Your task to perform on an android device: What's the weather like in Sydney? Image 0: 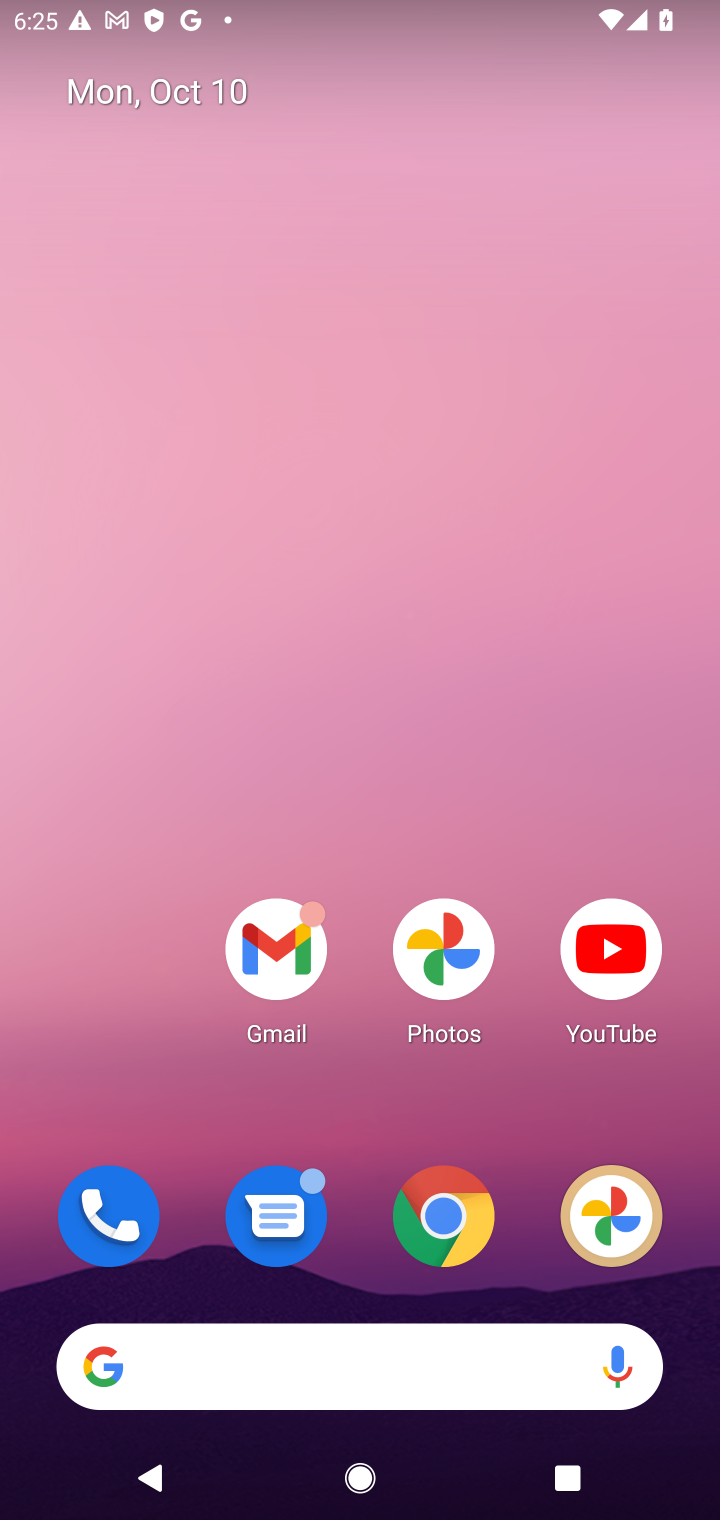
Step 0: drag from (386, 1348) to (376, 482)
Your task to perform on an android device: What's the weather like in Sydney? Image 1: 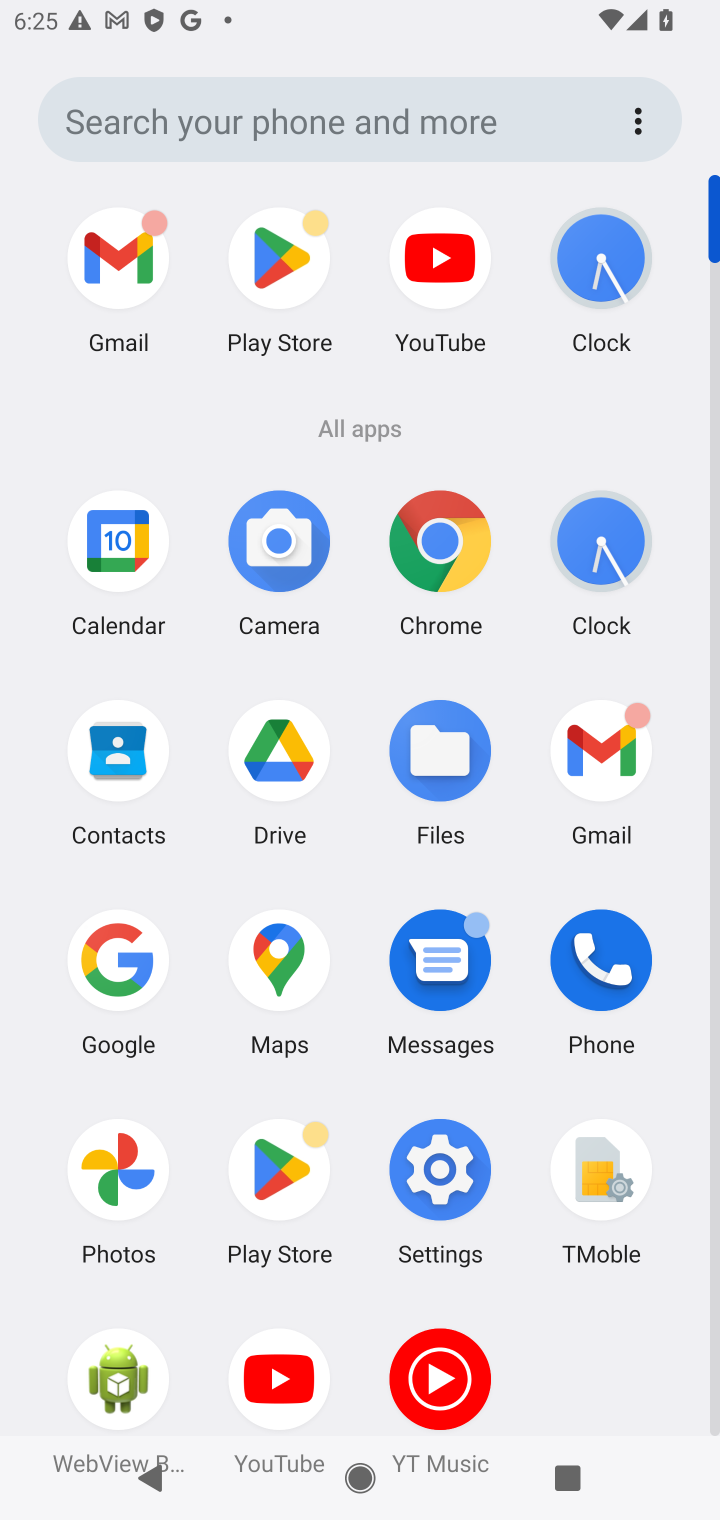
Step 1: click (120, 960)
Your task to perform on an android device: What's the weather like in Sydney? Image 2: 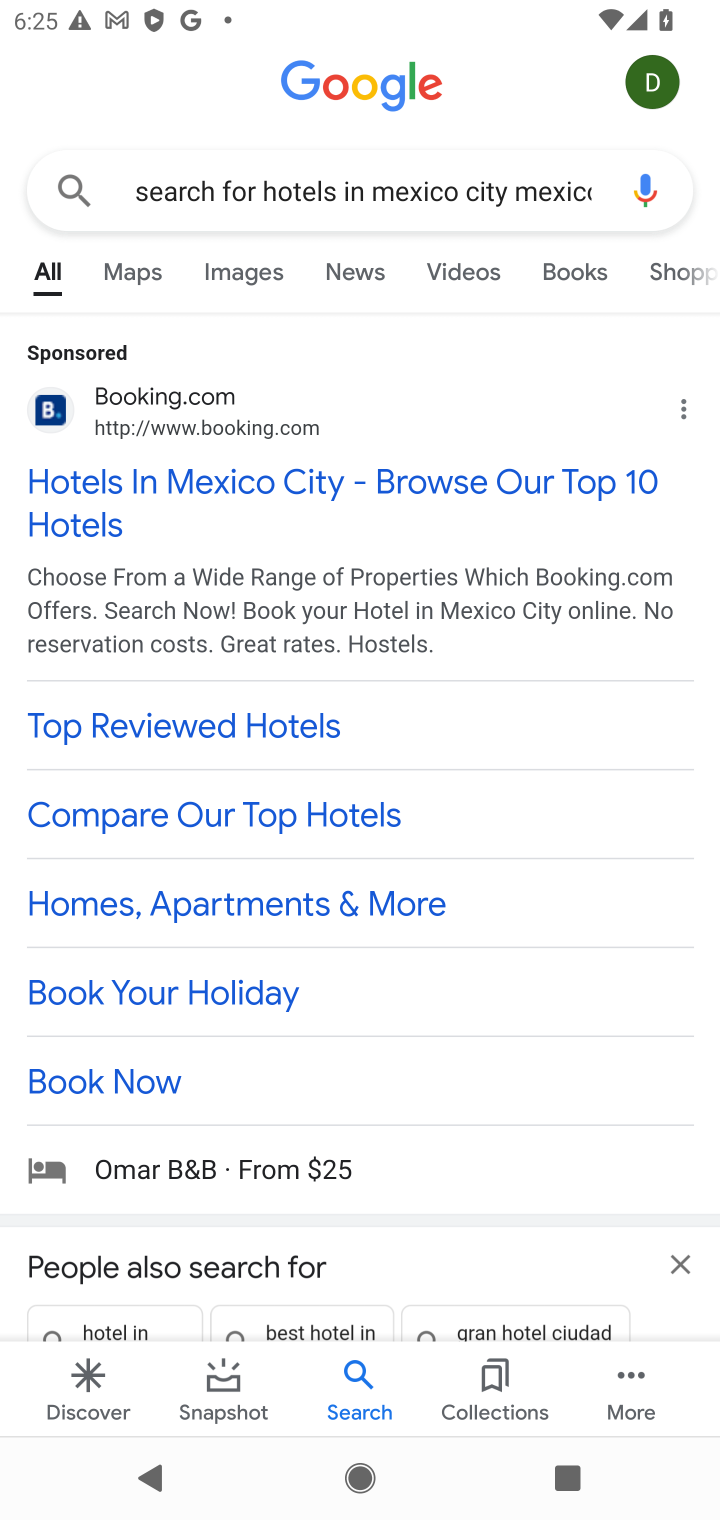
Step 2: type "What's the weather like in Sydney?"
Your task to perform on an android device: What's the weather like in Sydney? Image 3: 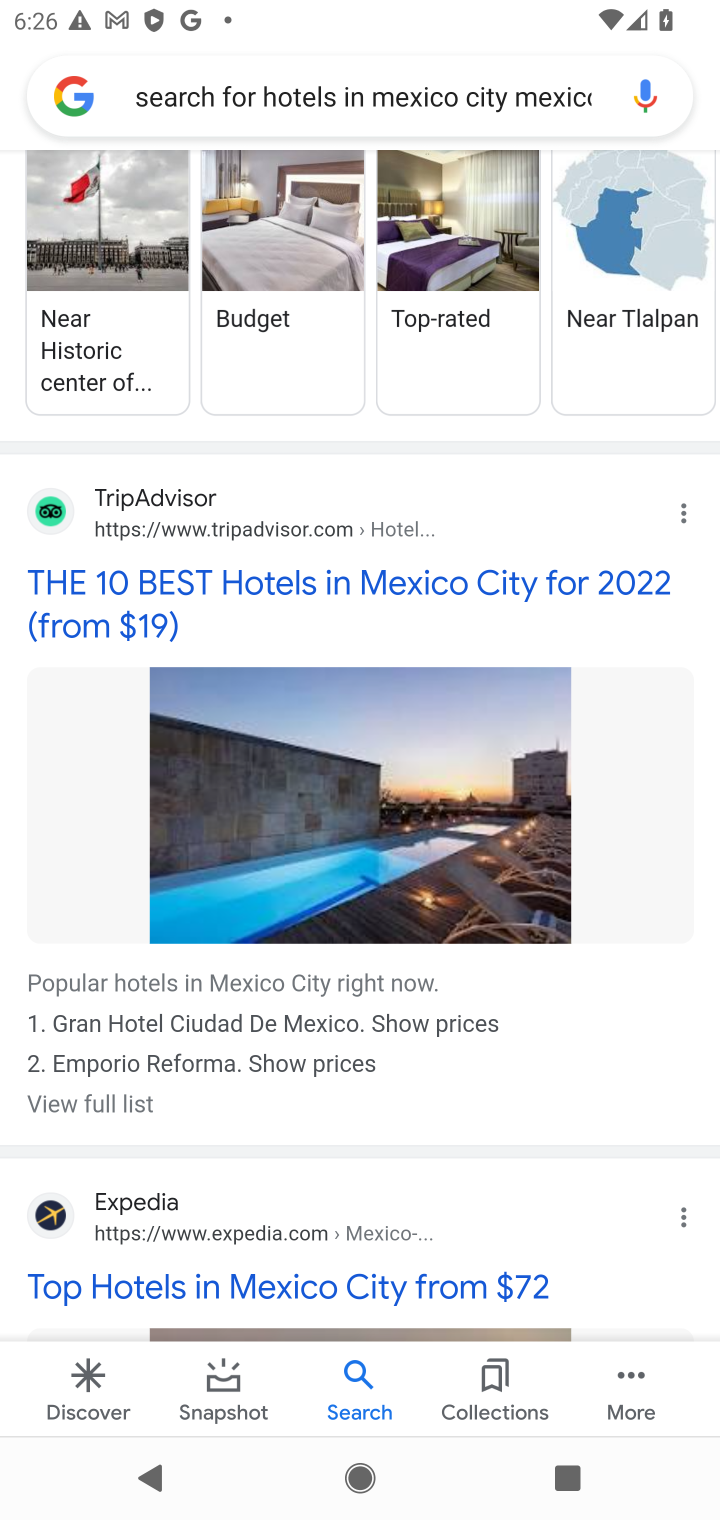
Step 3: click (177, 604)
Your task to perform on an android device: What's the weather like in Sydney? Image 4: 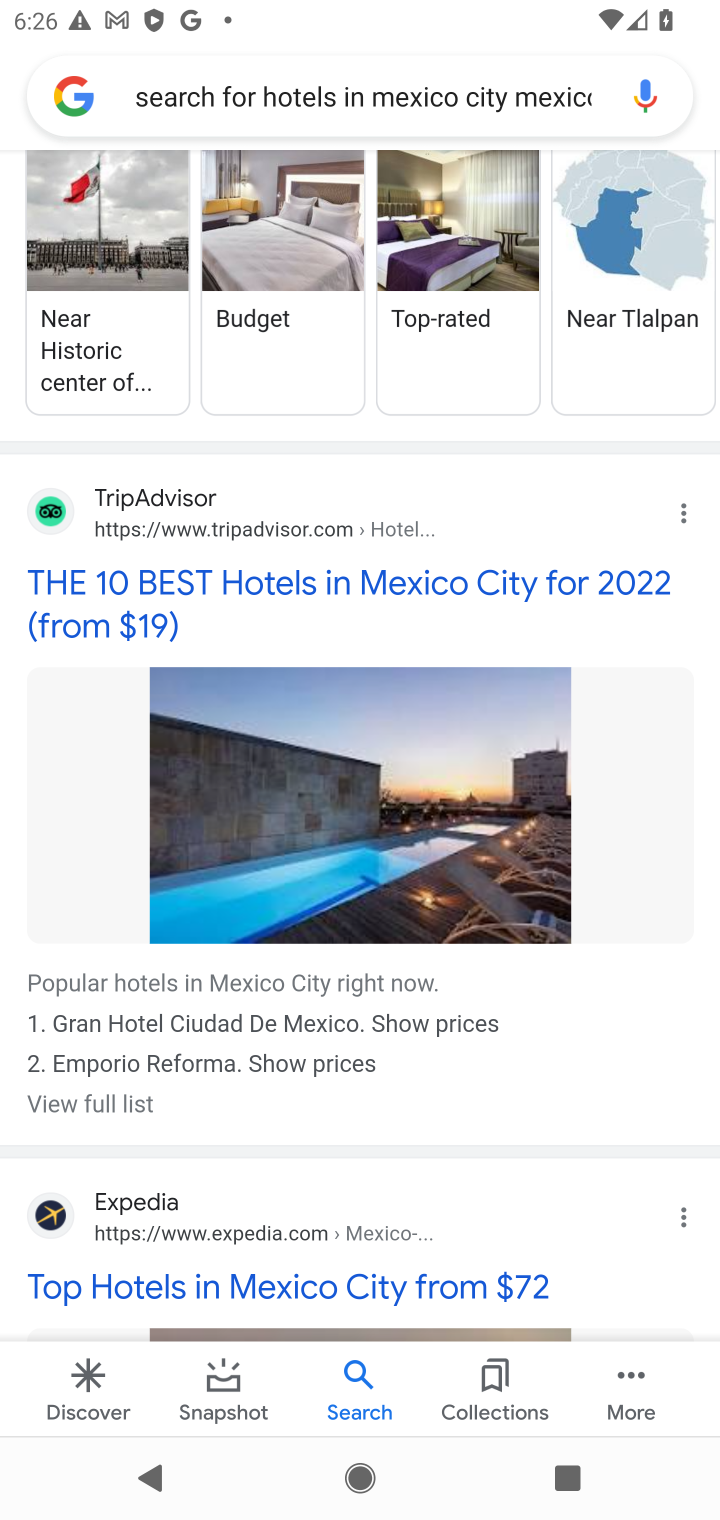
Step 4: click (176, 583)
Your task to perform on an android device: What's the weather like in Sydney? Image 5: 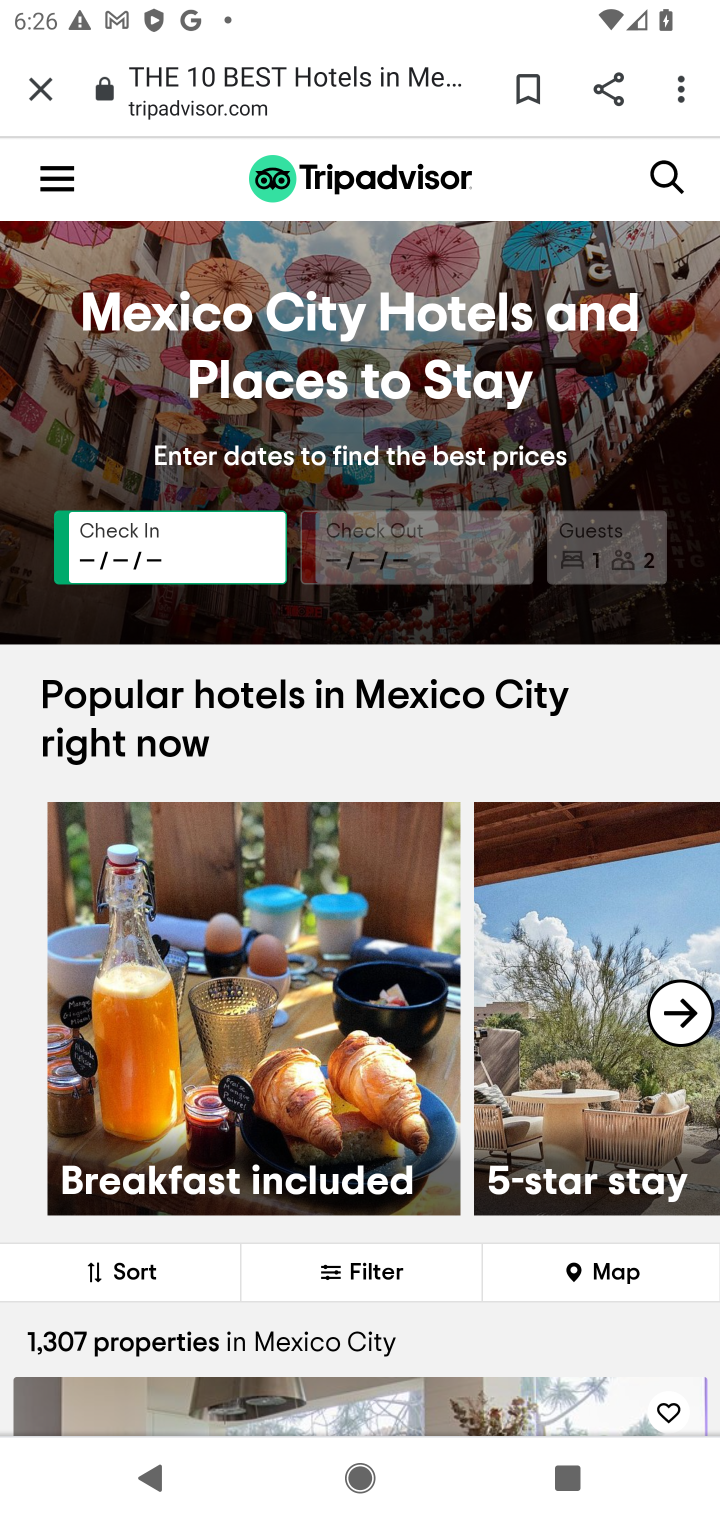
Step 5: task complete